Your task to perform on an android device: Search for the best rated 4k tvs on Walmart. Image 0: 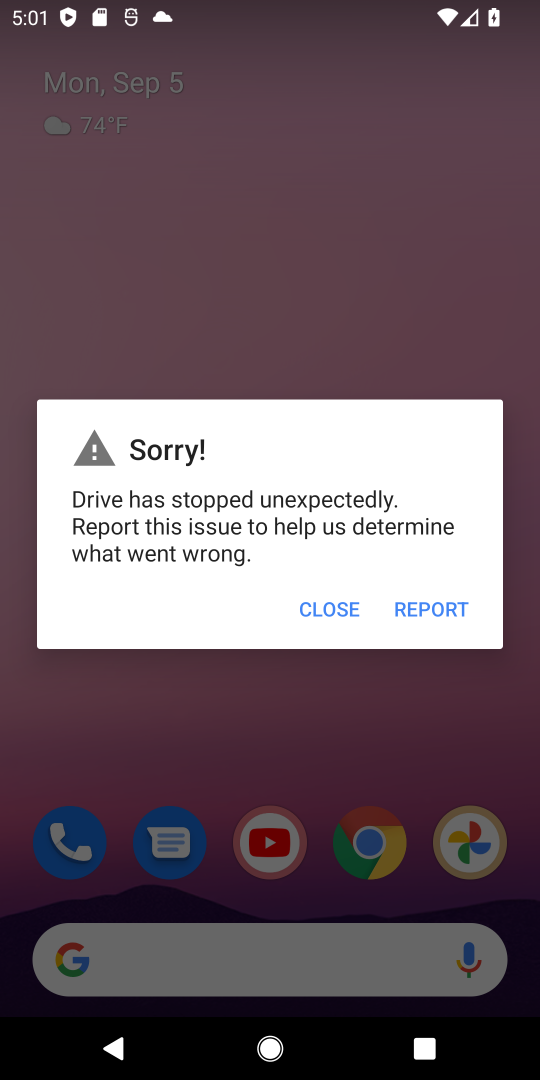
Step 0: press home button
Your task to perform on an android device: Search for the best rated 4k tvs on Walmart. Image 1: 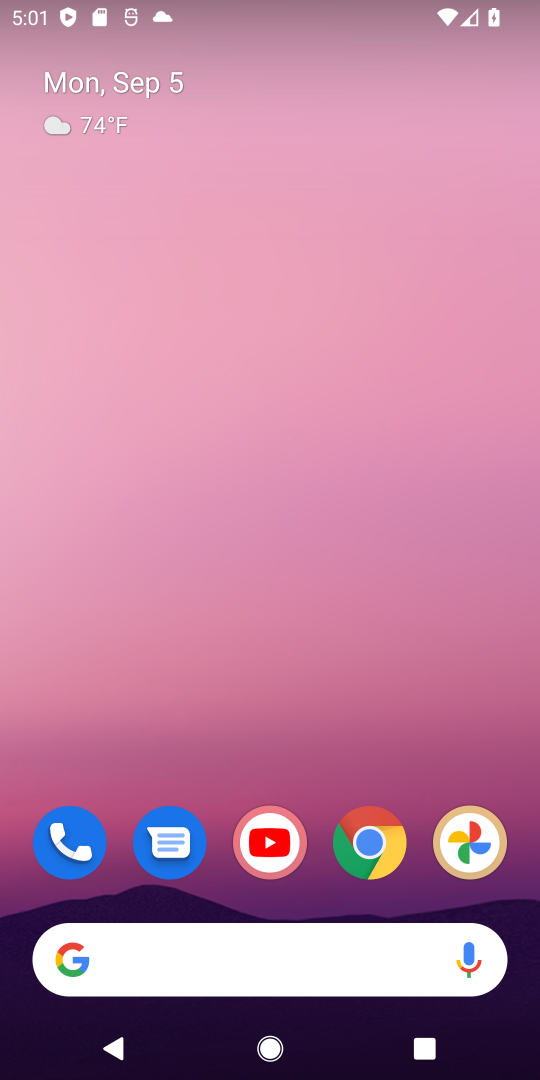
Step 1: click (370, 847)
Your task to perform on an android device: Search for the best rated 4k tvs on Walmart. Image 2: 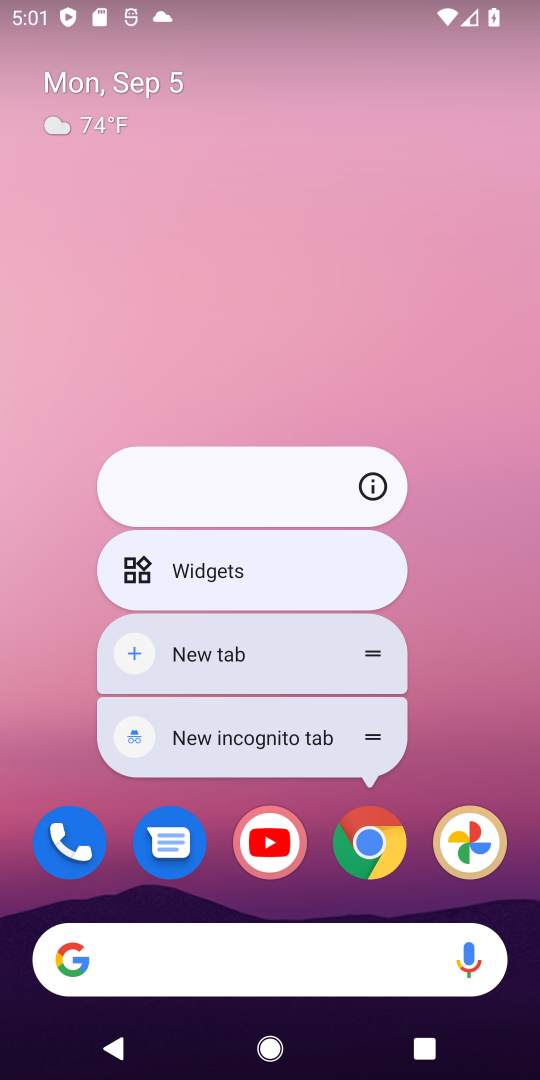
Step 2: click (370, 844)
Your task to perform on an android device: Search for the best rated 4k tvs on Walmart. Image 3: 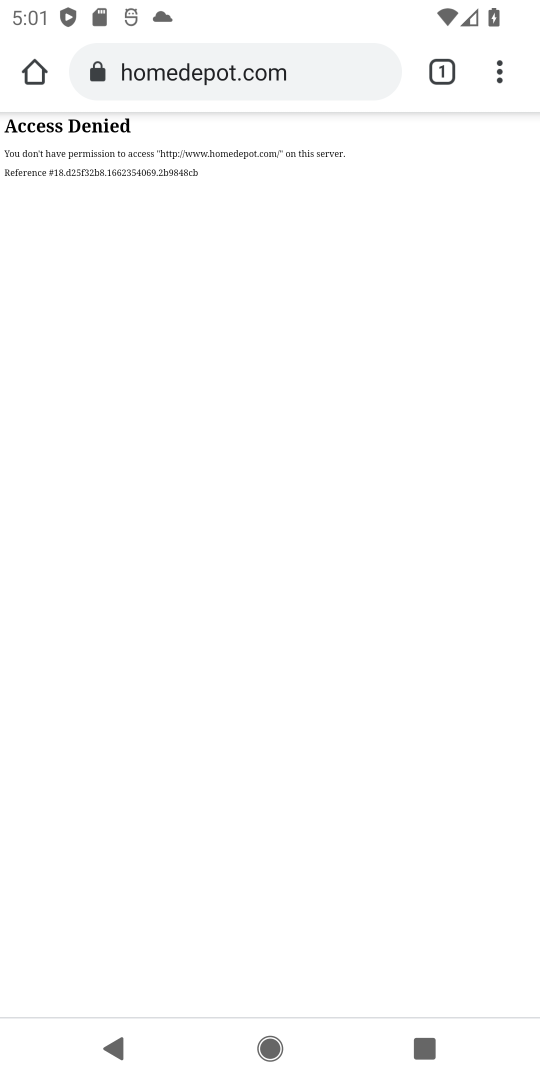
Step 3: click (304, 73)
Your task to perform on an android device: Search for the best rated 4k tvs on Walmart. Image 4: 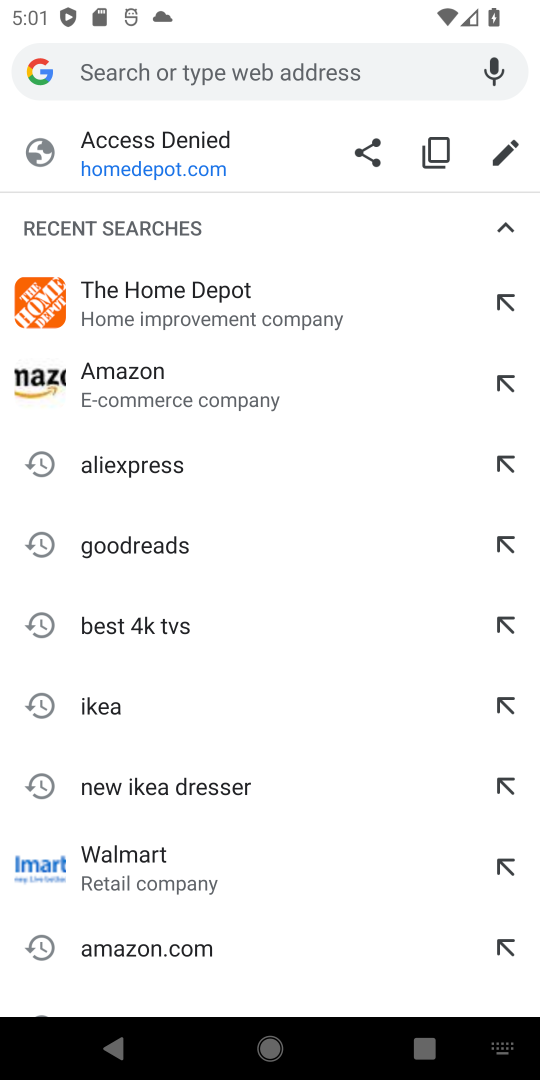
Step 4: type "Walmart"
Your task to perform on an android device: Search for the best rated 4k tvs on Walmart. Image 5: 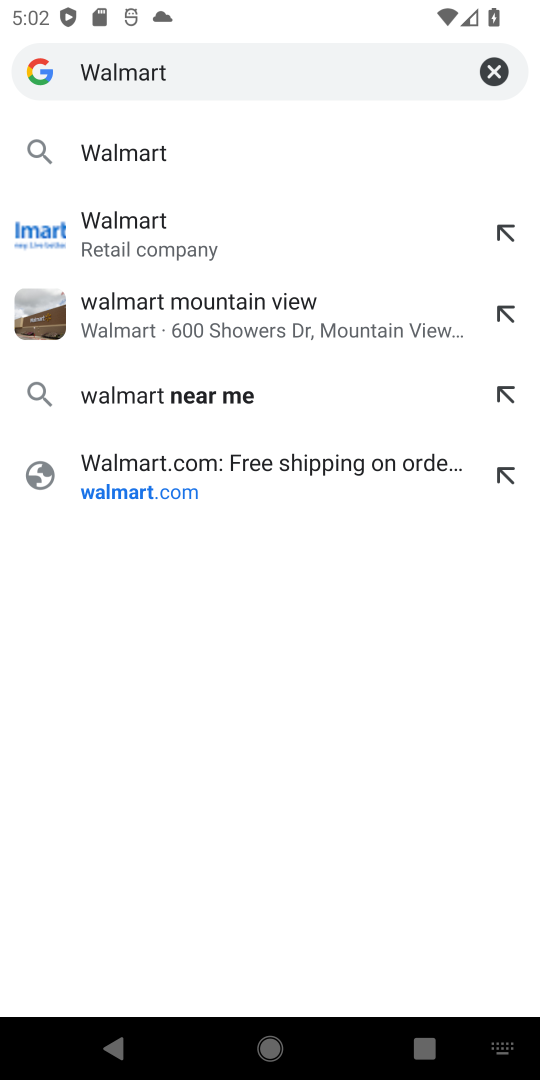
Step 5: click (112, 152)
Your task to perform on an android device: Search for the best rated 4k tvs on Walmart. Image 6: 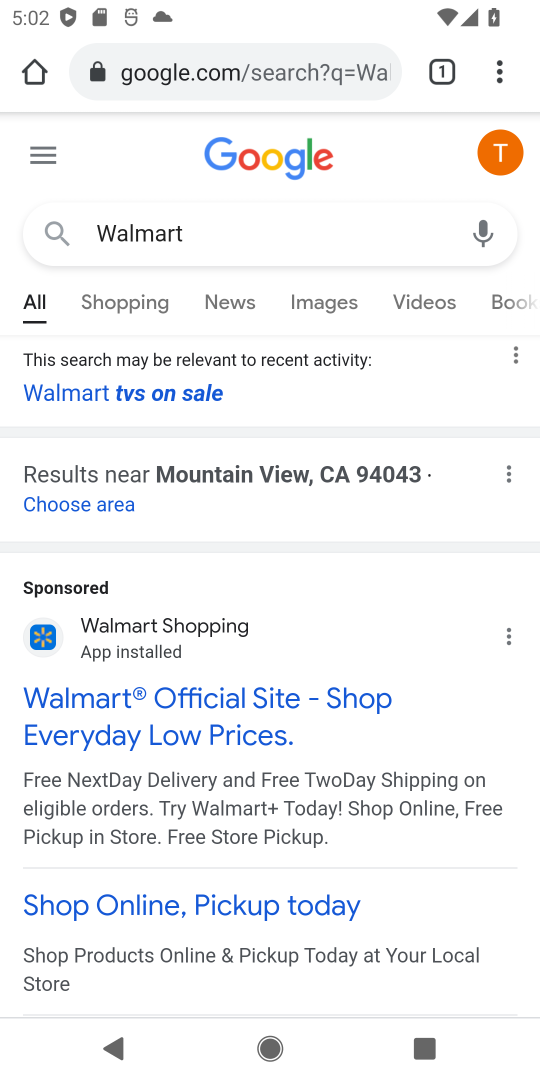
Step 6: drag from (237, 883) to (337, 658)
Your task to perform on an android device: Search for the best rated 4k tvs on Walmart. Image 7: 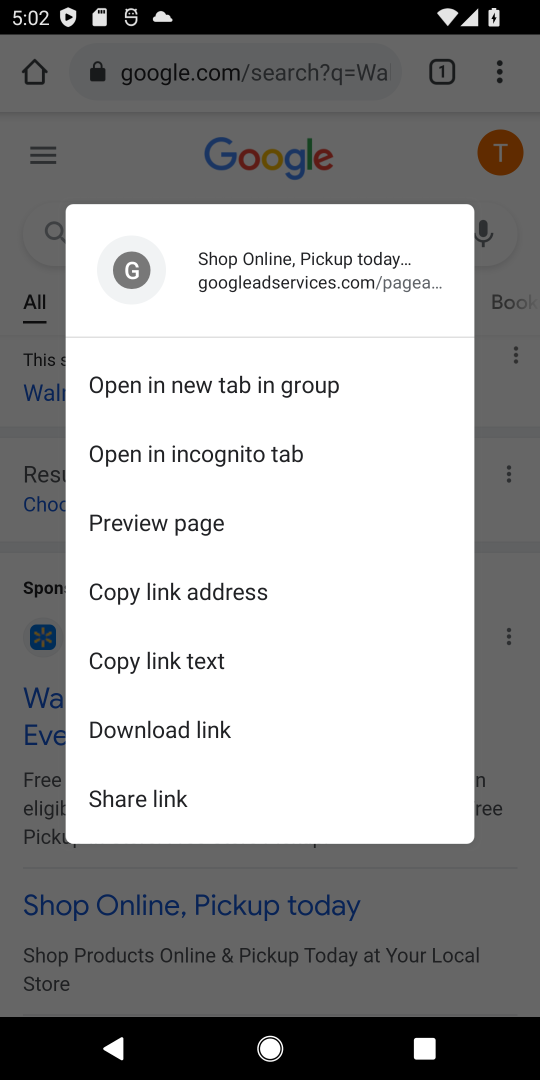
Step 7: click (112, 155)
Your task to perform on an android device: Search for the best rated 4k tvs on Walmart. Image 8: 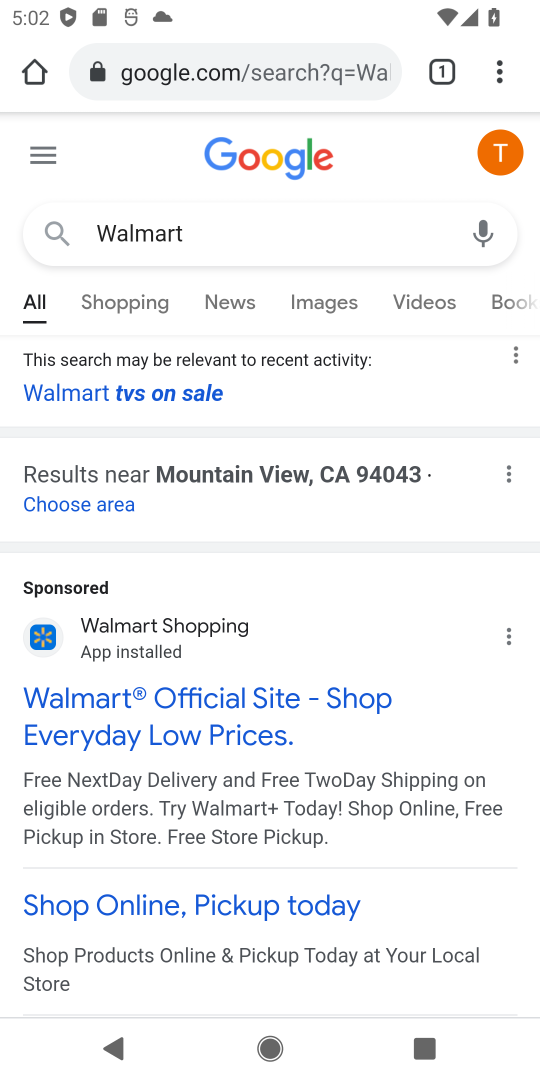
Step 8: drag from (322, 628) to (465, 164)
Your task to perform on an android device: Search for the best rated 4k tvs on Walmart. Image 9: 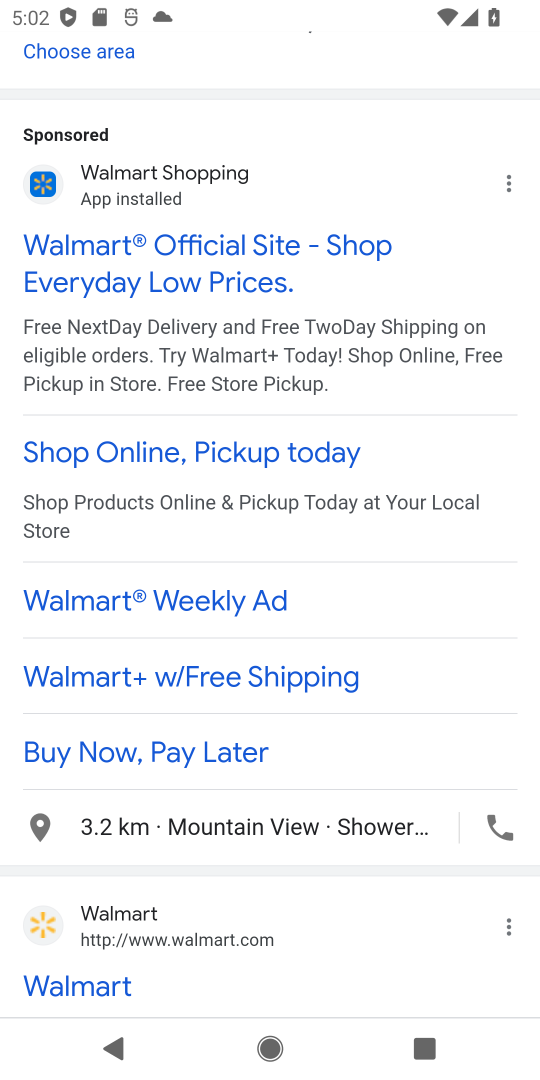
Step 9: click (152, 996)
Your task to perform on an android device: Search for the best rated 4k tvs on Walmart. Image 10: 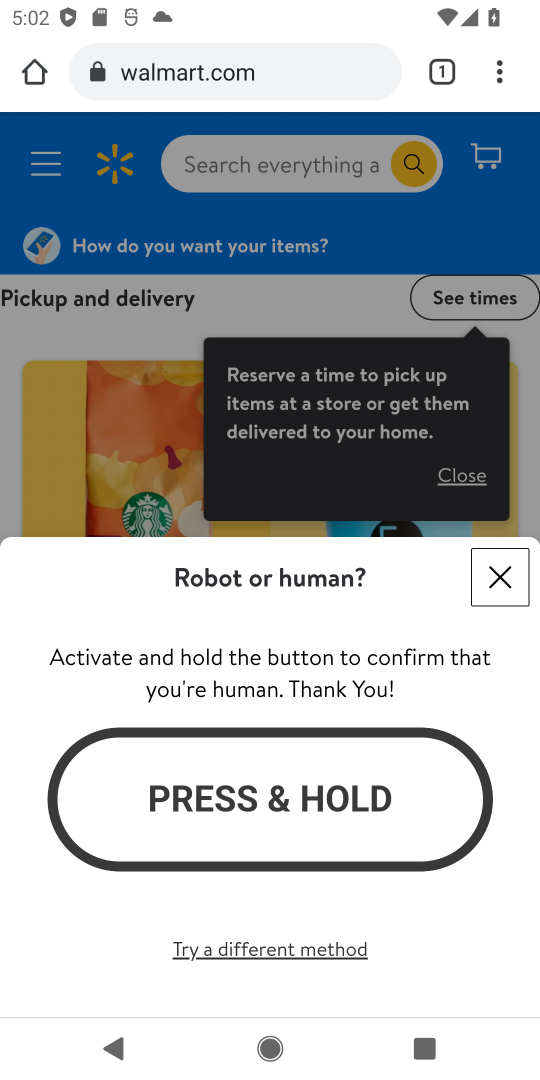
Step 10: click (333, 812)
Your task to perform on an android device: Search for the best rated 4k tvs on Walmart. Image 11: 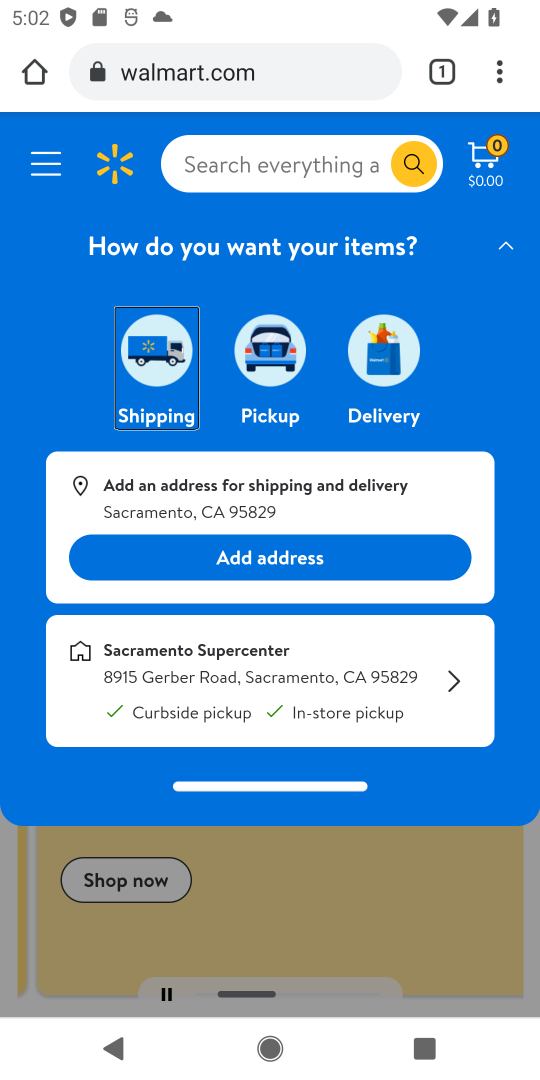
Step 11: click (323, 162)
Your task to perform on an android device: Search for the best rated 4k tvs on Walmart. Image 12: 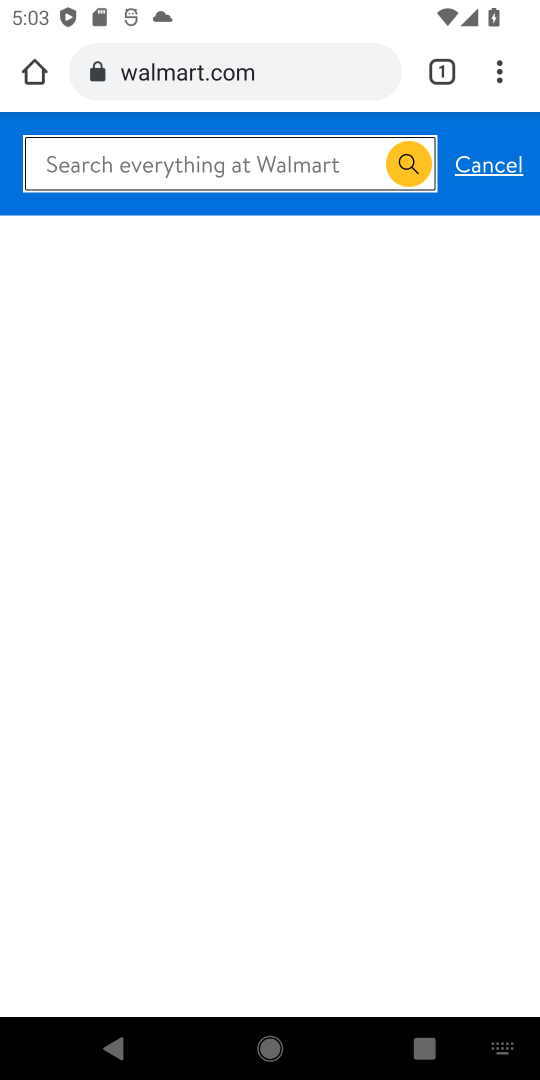
Step 12: type " best rated 4k tvs"
Your task to perform on an android device: Search for the best rated 4k tvs on Walmart. Image 13: 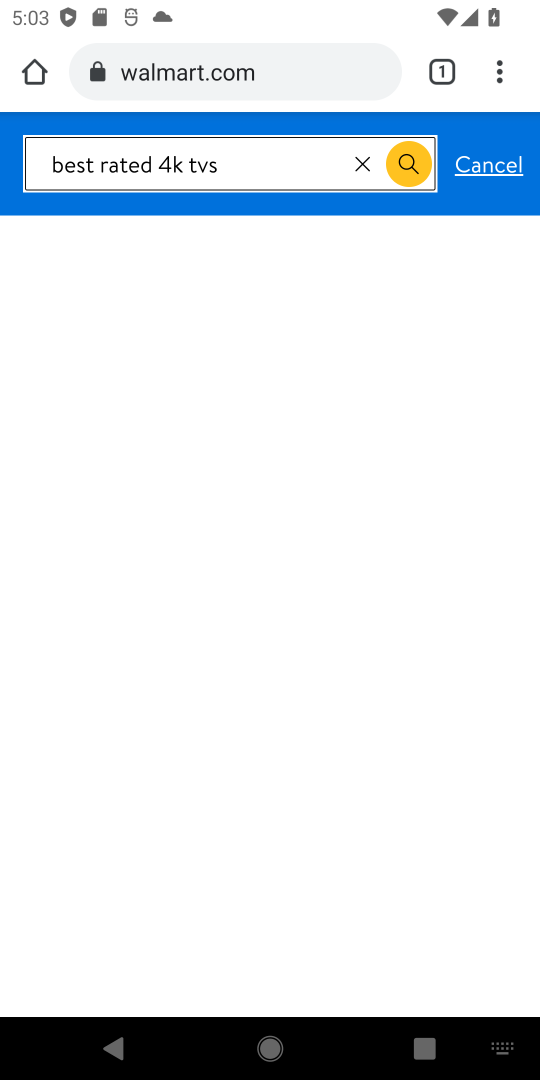
Step 13: click (413, 167)
Your task to perform on an android device: Search for the best rated 4k tvs on Walmart. Image 14: 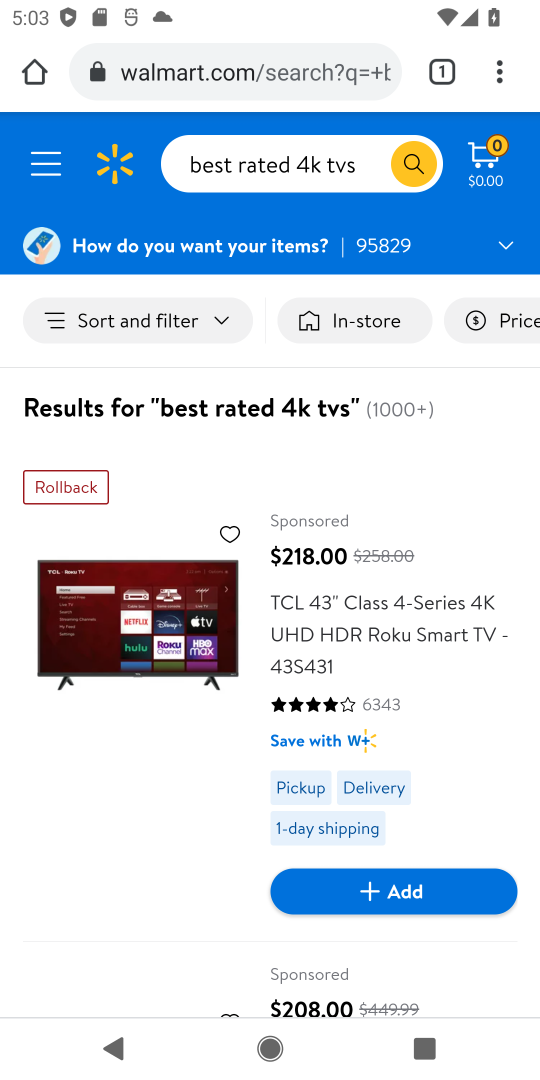
Step 14: click (381, 968)
Your task to perform on an android device: Search for the best rated 4k tvs on Walmart. Image 15: 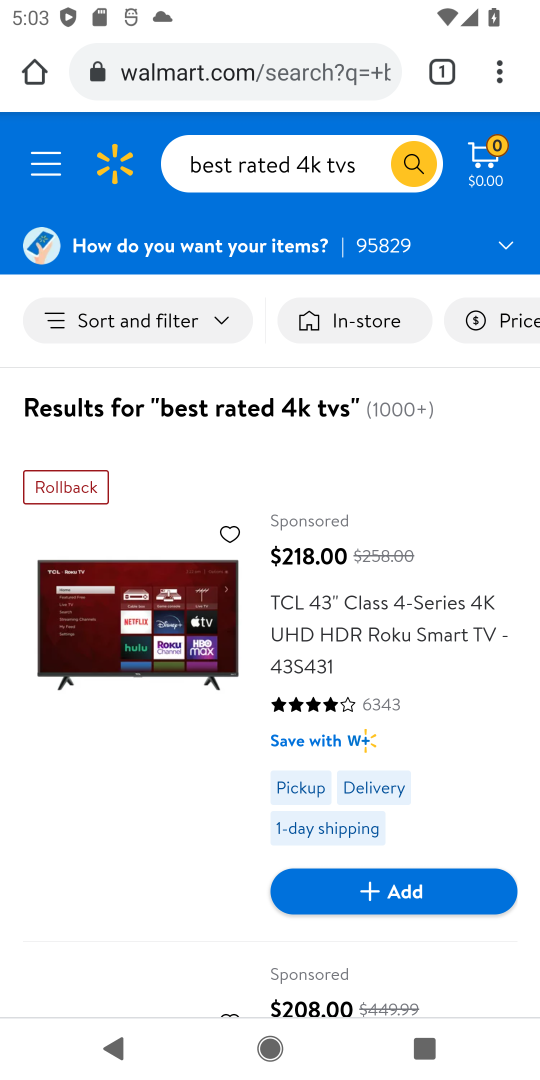
Step 15: task complete